Your task to perform on an android device: toggle wifi Image 0: 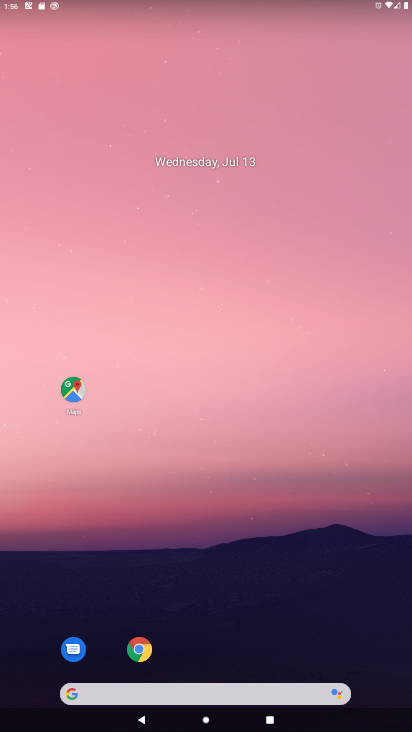
Step 0: drag from (376, 4) to (349, 639)
Your task to perform on an android device: toggle wifi Image 1: 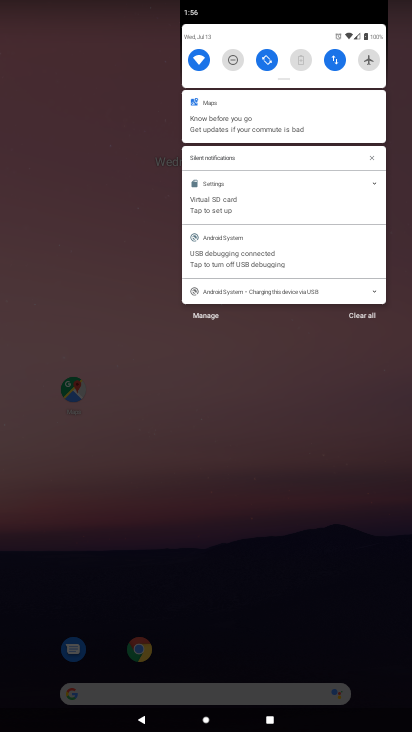
Step 1: click (201, 56)
Your task to perform on an android device: toggle wifi Image 2: 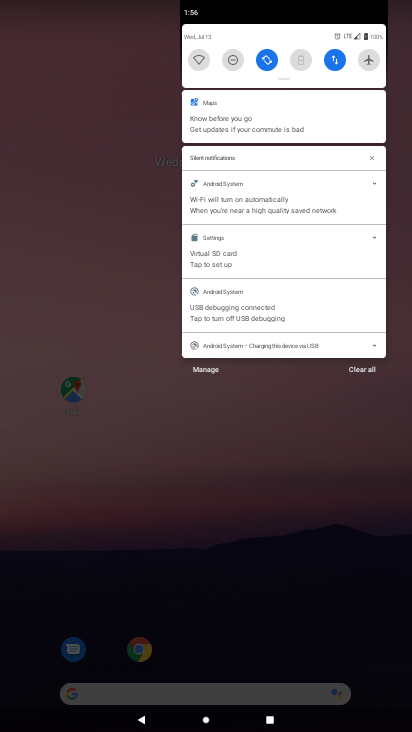
Step 2: task complete